Your task to perform on an android device: change your default location settings in chrome Image 0: 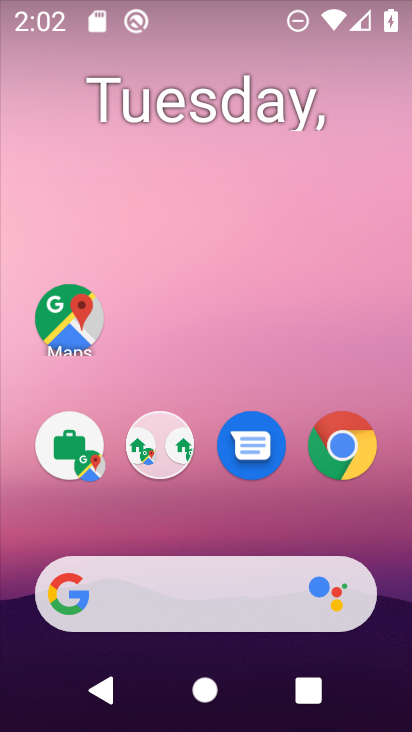
Step 0: click (362, 447)
Your task to perform on an android device: change your default location settings in chrome Image 1: 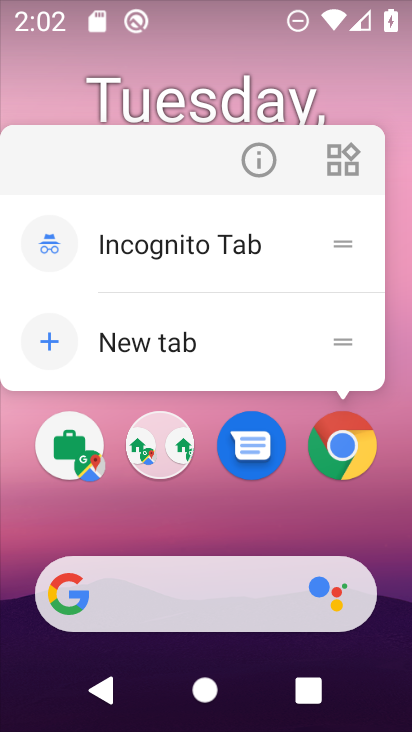
Step 1: click (194, 352)
Your task to perform on an android device: change your default location settings in chrome Image 2: 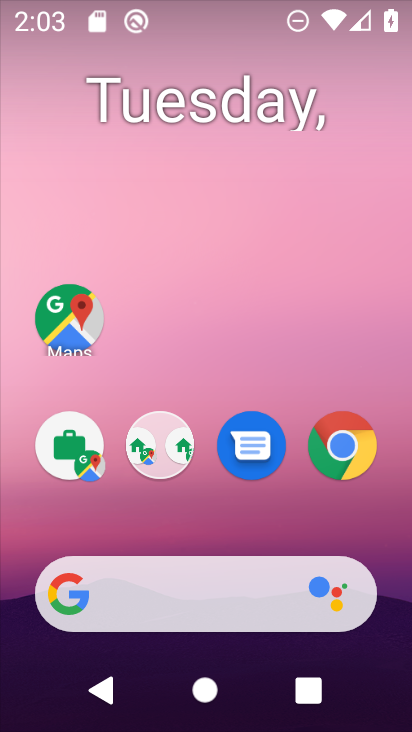
Step 2: click (356, 475)
Your task to perform on an android device: change your default location settings in chrome Image 3: 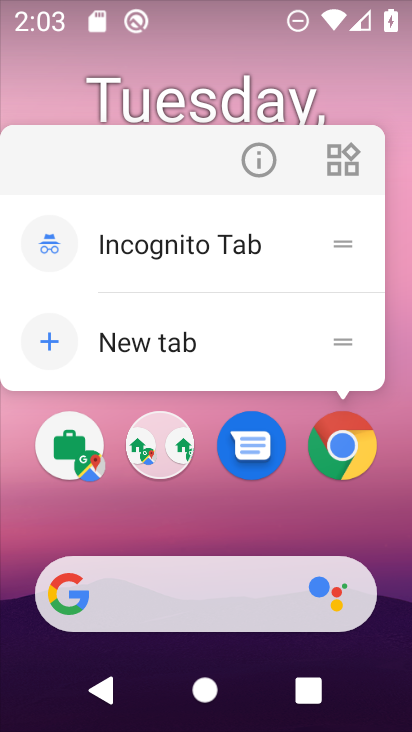
Step 3: click (182, 364)
Your task to perform on an android device: change your default location settings in chrome Image 4: 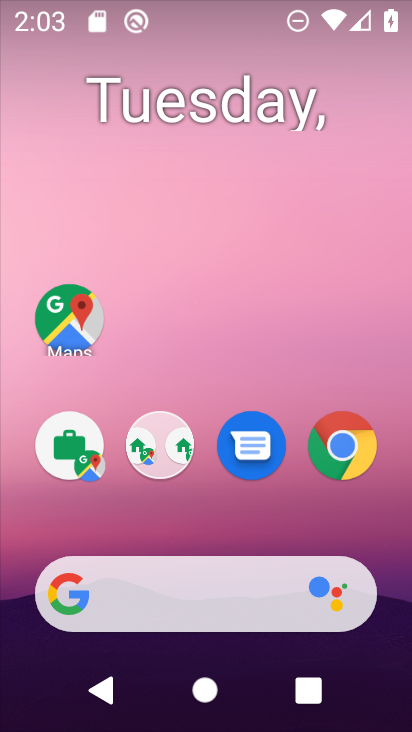
Step 4: click (354, 471)
Your task to perform on an android device: change your default location settings in chrome Image 5: 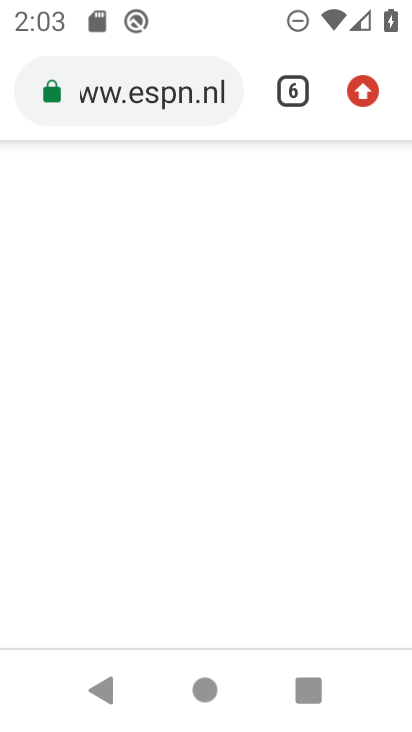
Step 5: click (358, 103)
Your task to perform on an android device: change your default location settings in chrome Image 6: 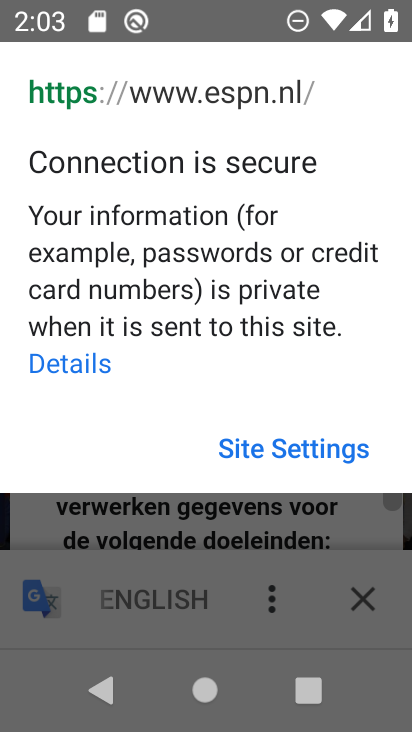
Step 6: task complete